Your task to perform on an android device: toggle pop-ups in chrome Image 0: 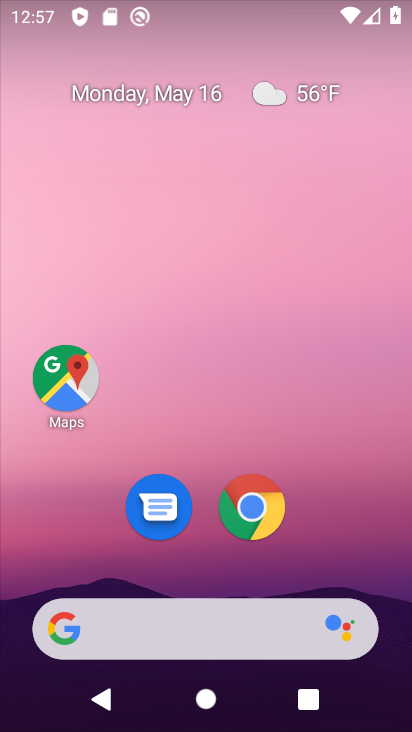
Step 0: click (245, 515)
Your task to perform on an android device: toggle pop-ups in chrome Image 1: 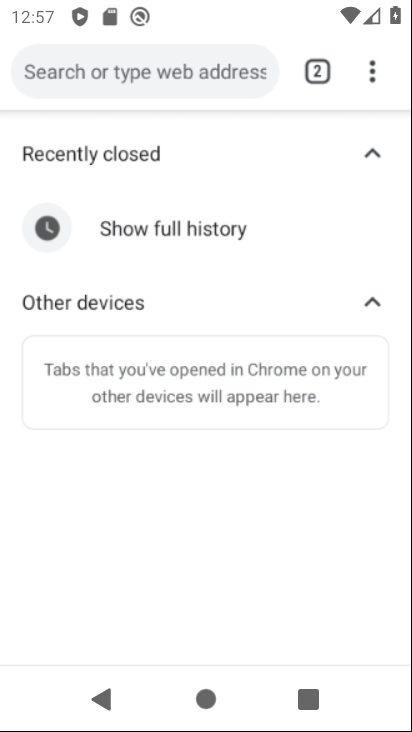
Step 1: drag from (376, 71) to (133, 505)
Your task to perform on an android device: toggle pop-ups in chrome Image 2: 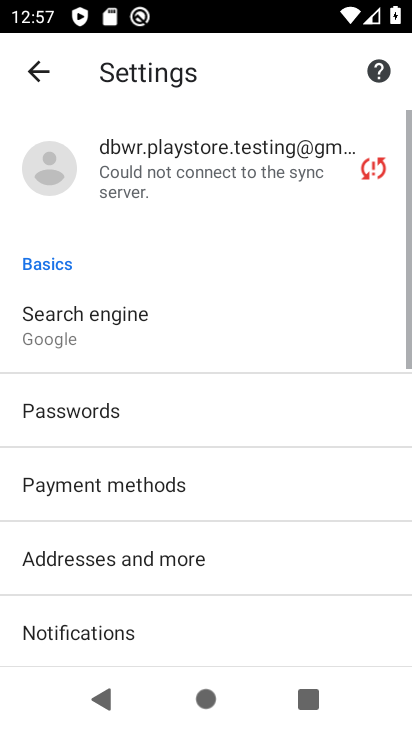
Step 2: drag from (304, 638) to (329, 281)
Your task to perform on an android device: toggle pop-ups in chrome Image 3: 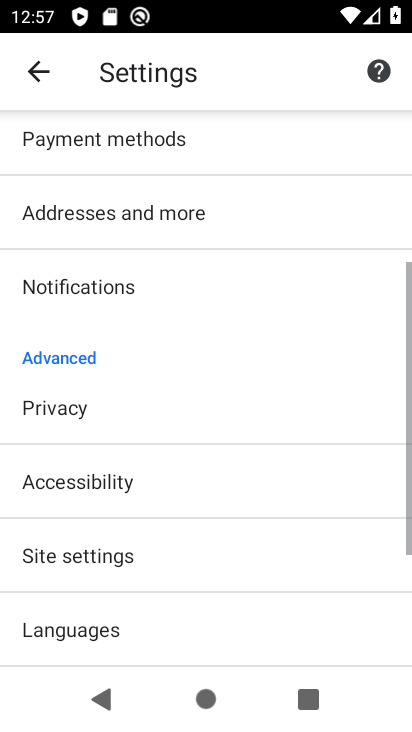
Step 3: drag from (329, 484) to (330, 307)
Your task to perform on an android device: toggle pop-ups in chrome Image 4: 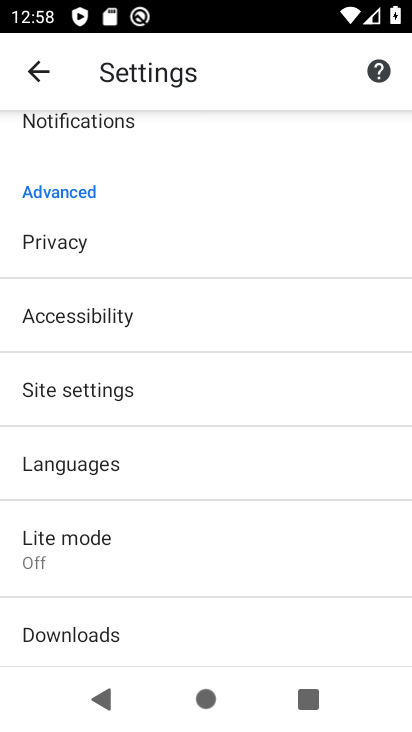
Step 4: click (194, 396)
Your task to perform on an android device: toggle pop-ups in chrome Image 5: 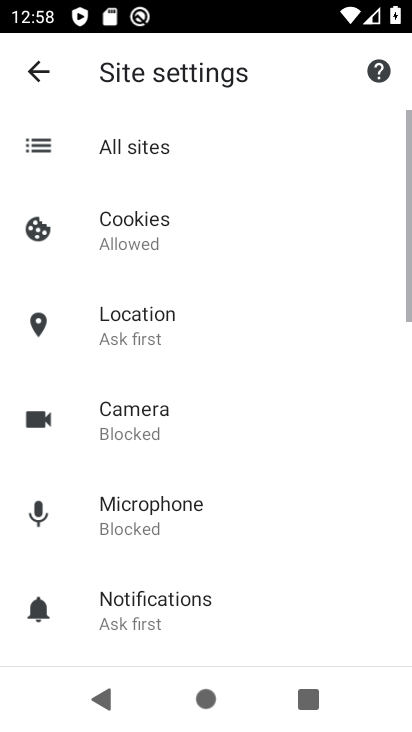
Step 5: drag from (280, 559) to (283, 206)
Your task to perform on an android device: toggle pop-ups in chrome Image 6: 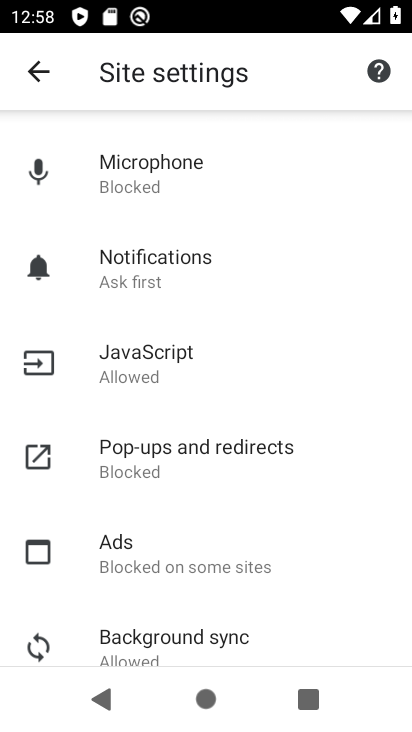
Step 6: drag from (229, 533) to (226, 285)
Your task to perform on an android device: toggle pop-ups in chrome Image 7: 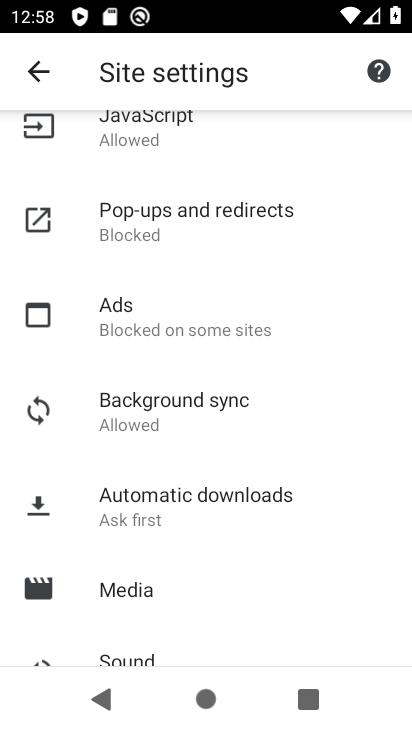
Step 7: click (206, 238)
Your task to perform on an android device: toggle pop-ups in chrome Image 8: 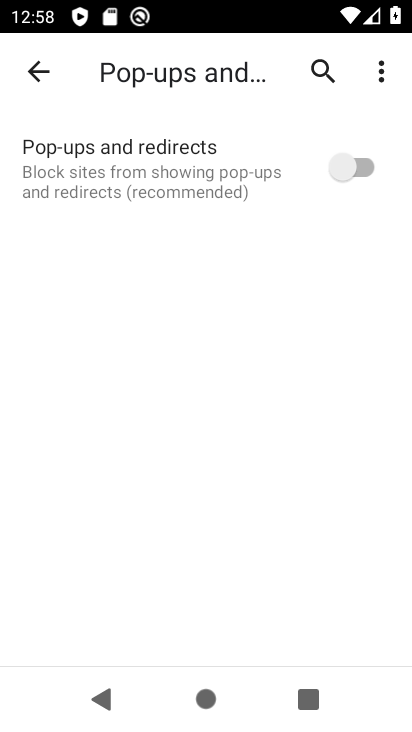
Step 8: click (367, 177)
Your task to perform on an android device: toggle pop-ups in chrome Image 9: 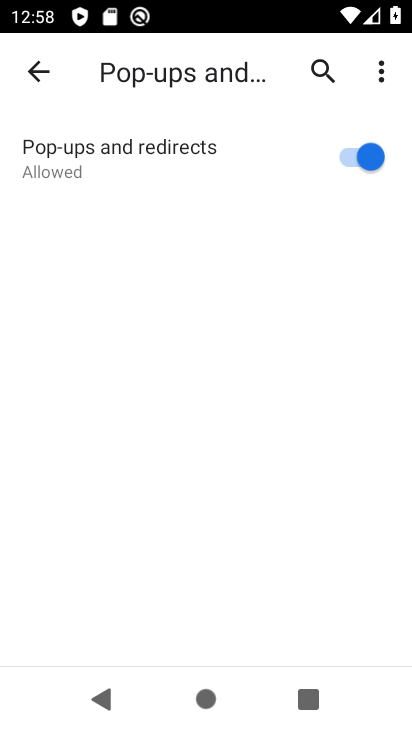
Step 9: task complete